Your task to perform on an android device: Search for Italian restaurants on Maps Image 0: 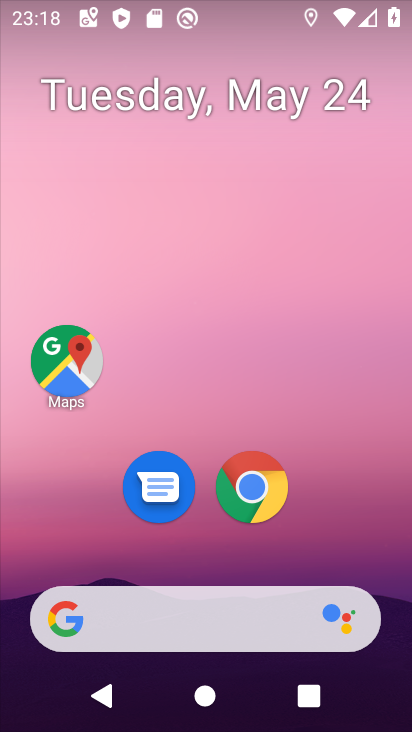
Step 0: click (72, 354)
Your task to perform on an android device: Search for Italian restaurants on Maps Image 1: 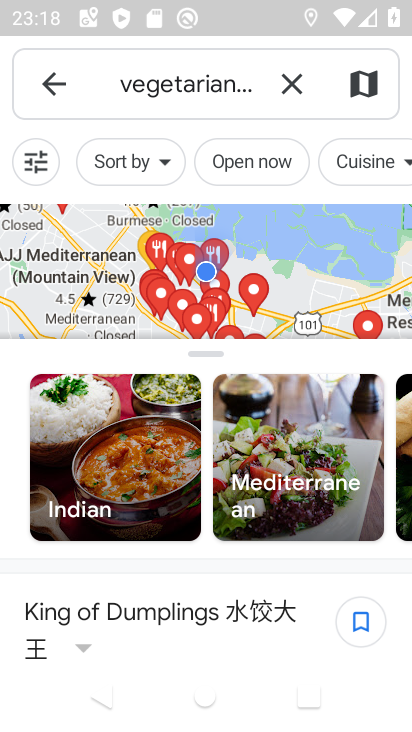
Step 1: click (293, 72)
Your task to perform on an android device: Search for Italian restaurants on Maps Image 2: 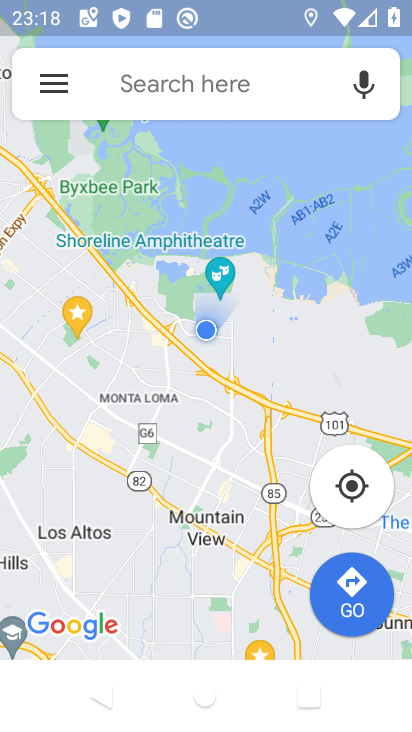
Step 2: click (200, 94)
Your task to perform on an android device: Search for Italian restaurants on Maps Image 3: 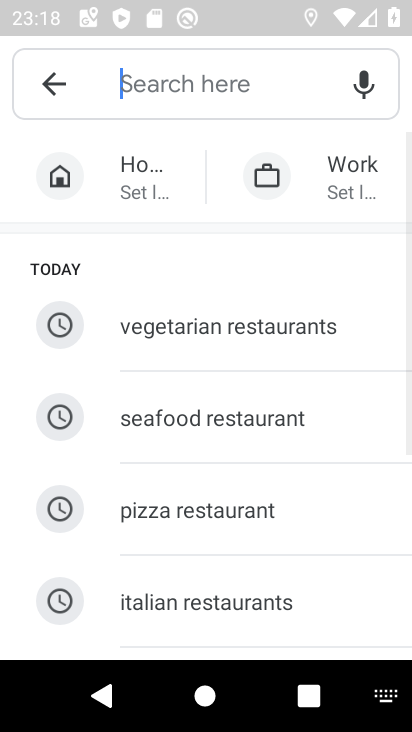
Step 3: click (198, 599)
Your task to perform on an android device: Search for Italian restaurants on Maps Image 4: 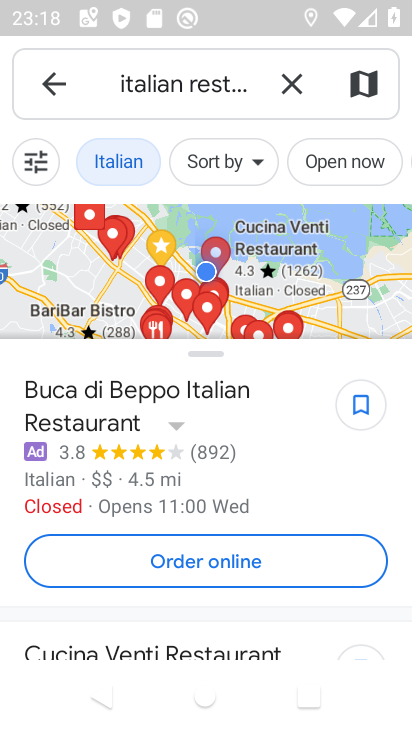
Step 4: task complete